Your task to perform on an android device: Open Chrome and go to settings Image 0: 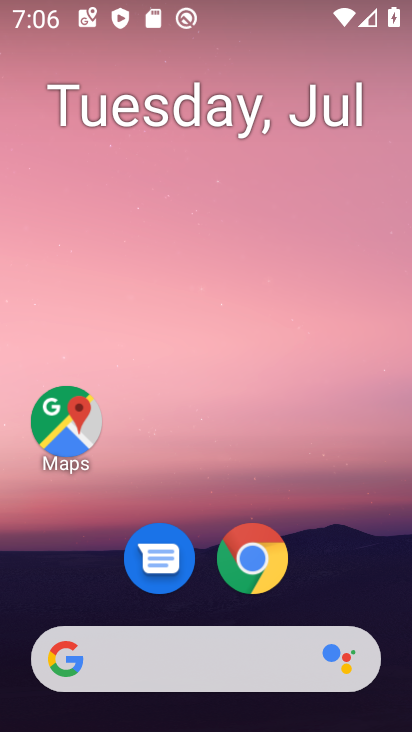
Step 0: click (243, 556)
Your task to perform on an android device: Open Chrome and go to settings Image 1: 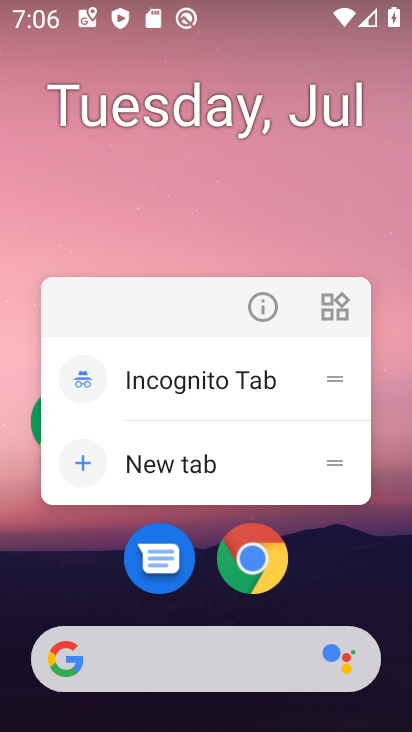
Step 1: click (249, 560)
Your task to perform on an android device: Open Chrome and go to settings Image 2: 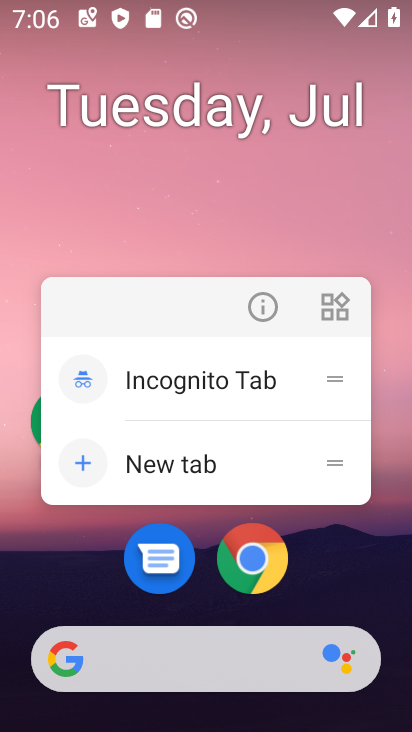
Step 2: click (256, 563)
Your task to perform on an android device: Open Chrome and go to settings Image 3: 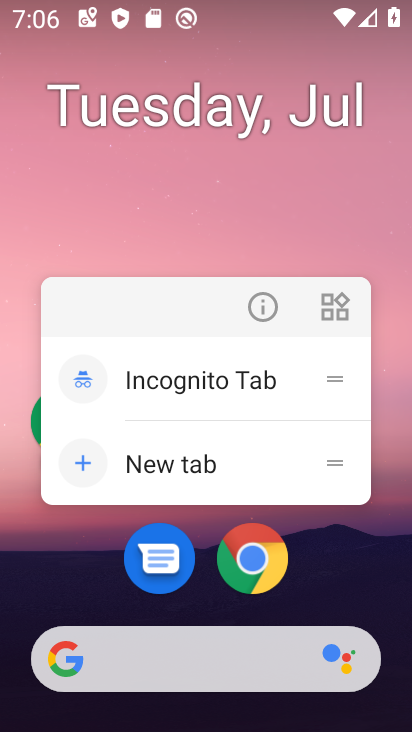
Step 3: click (245, 557)
Your task to perform on an android device: Open Chrome and go to settings Image 4: 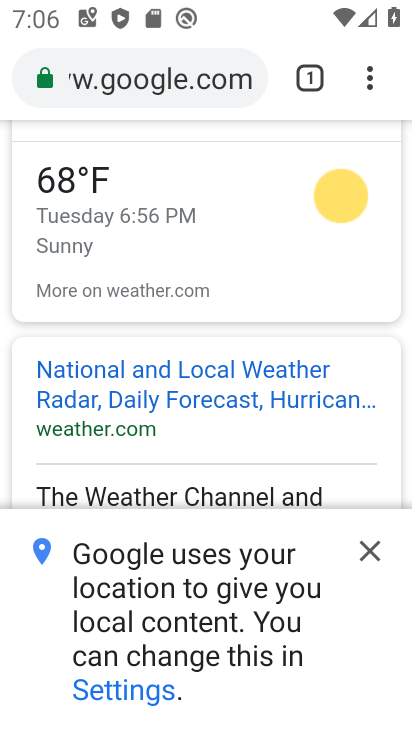
Step 4: task complete